Your task to perform on an android device: turn off location history Image 0: 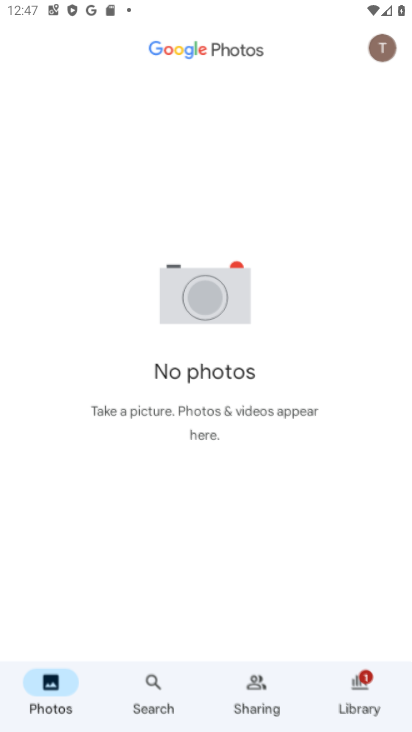
Step 0: drag from (248, 579) to (276, 147)
Your task to perform on an android device: turn off location history Image 1: 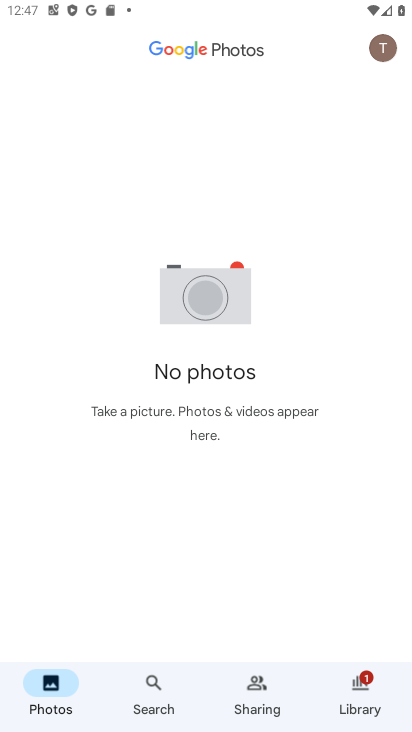
Step 1: press home button
Your task to perform on an android device: turn off location history Image 2: 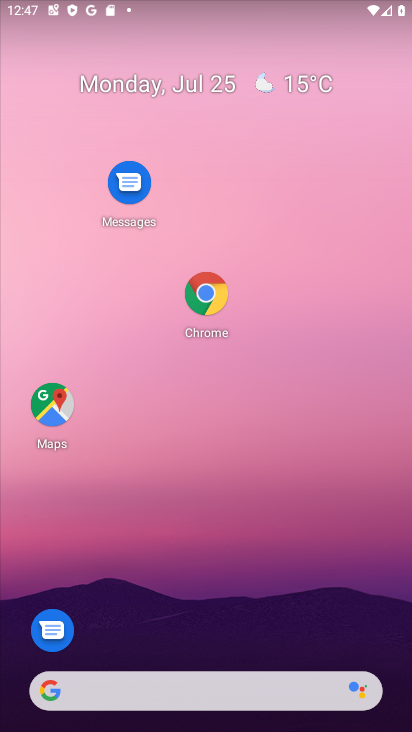
Step 2: drag from (319, 610) to (367, 126)
Your task to perform on an android device: turn off location history Image 3: 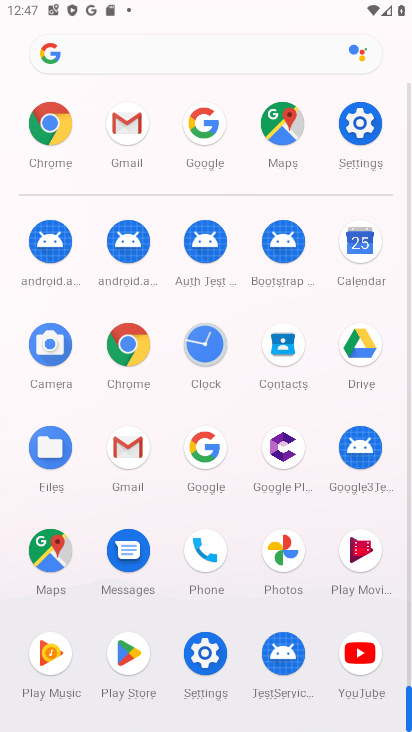
Step 3: click (47, 550)
Your task to perform on an android device: turn off location history Image 4: 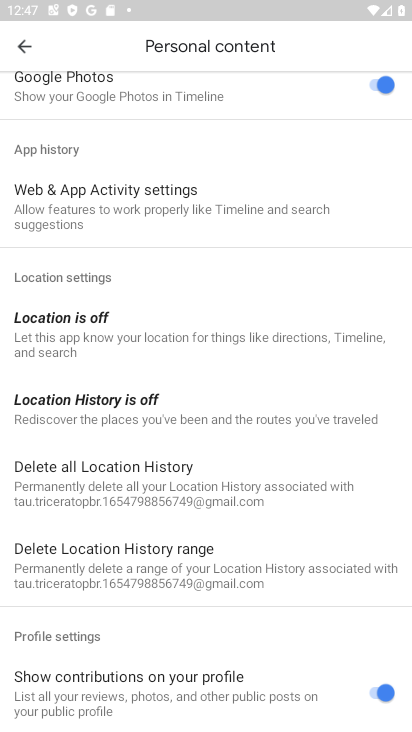
Step 4: click (89, 402)
Your task to perform on an android device: turn off location history Image 5: 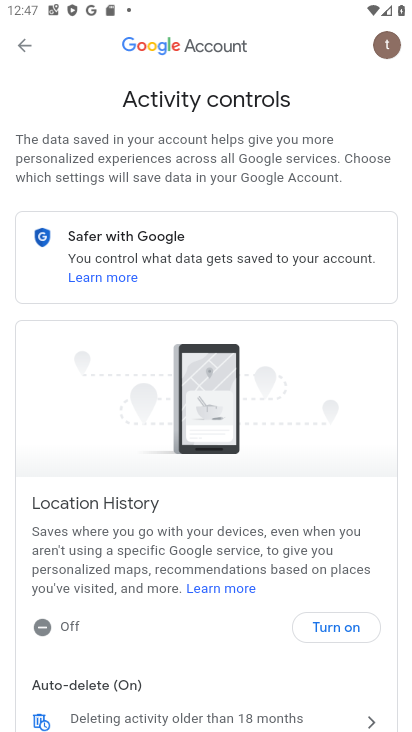
Step 5: task complete